Your task to perform on an android device: Open sound settings Image 0: 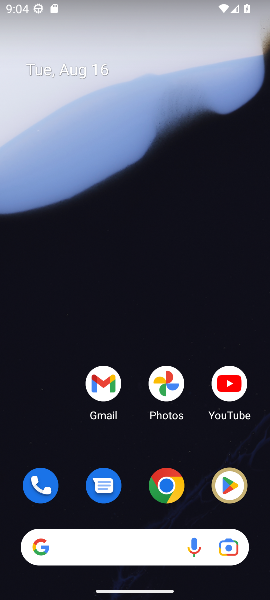
Step 0: drag from (114, 313) to (148, 17)
Your task to perform on an android device: Open sound settings Image 1: 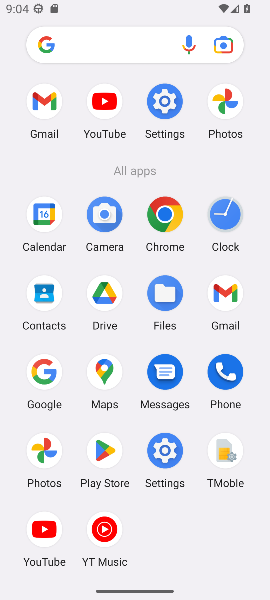
Step 1: click (171, 458)
Your task to perform on an android device: Open sound settings Image 2: 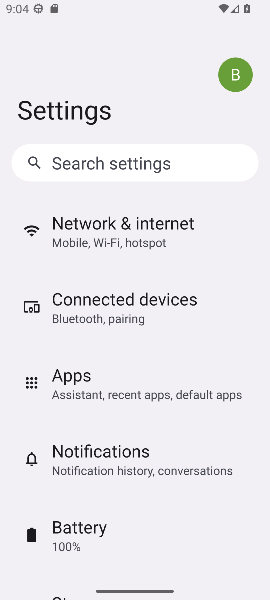
Step 2: drag from (170, 516) to (107, 256)
Your task to perform on an android device: Open sound settings Image 3: 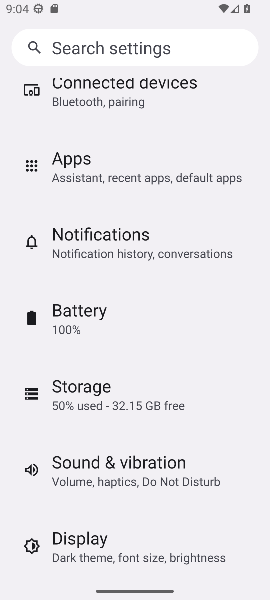
Step 3: click (146, 468)
Your task to perform on an android device: Open sound settings Image 4: 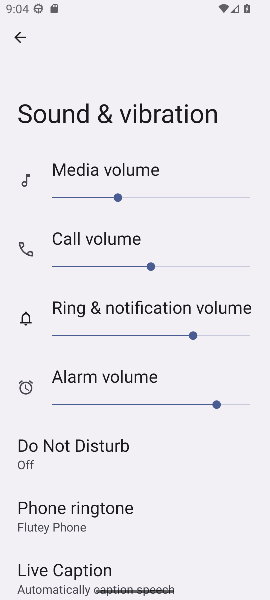
Step 4: task complete